Your task to perform on an android device: show emergency info Image 0: 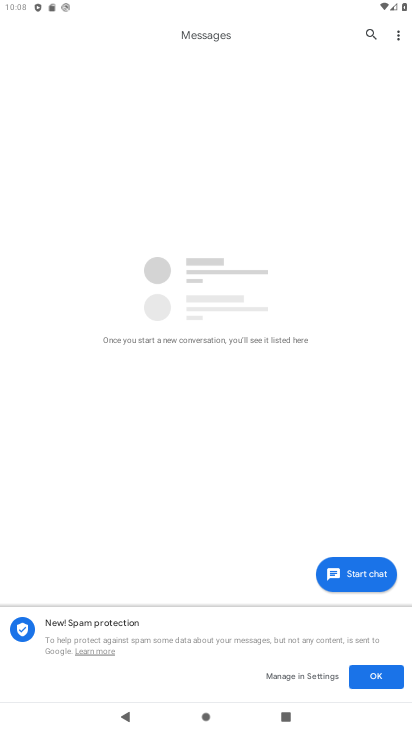
Step 0: press home button
Your task to perform on an android device: show emergency info Image 1: 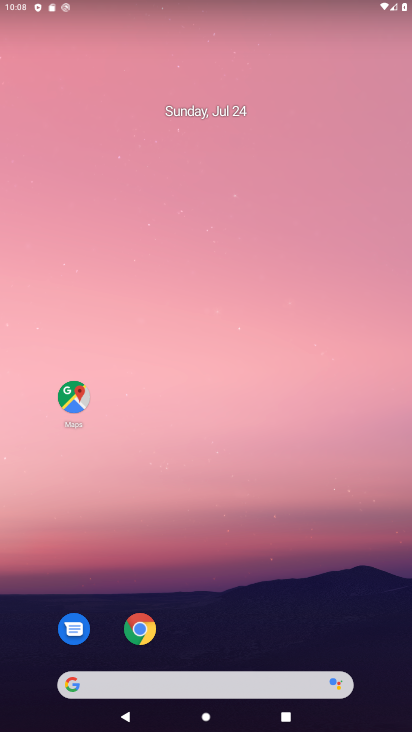
Step 1: drag from (197, 632) to (193, 91)
Your task to perform on an android device: show emergency info Image 2: 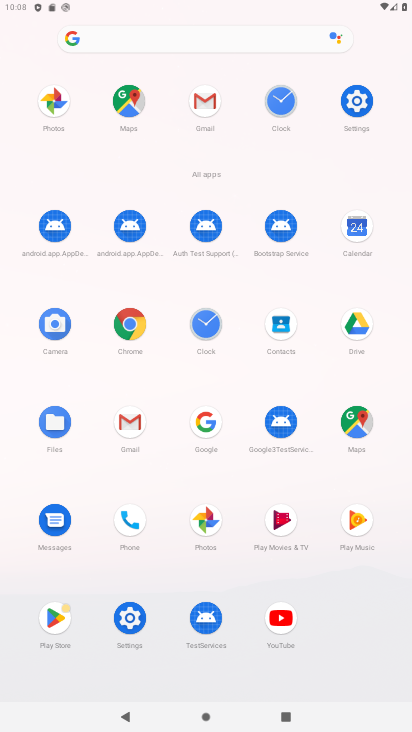
Step 2: click (357, 96)
Your task to perform on an android device: show emergency info Image 3: 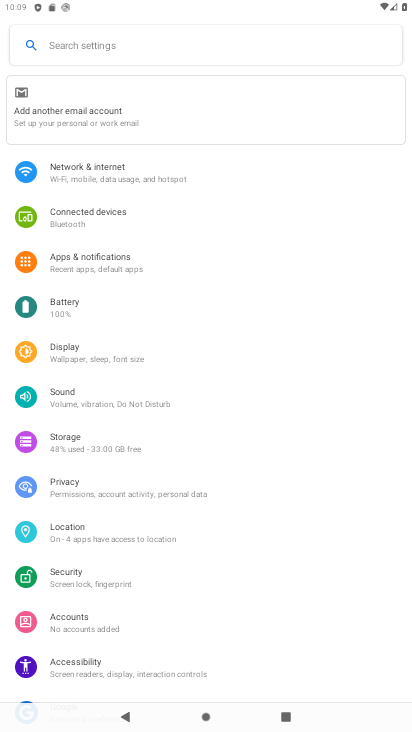
Step 3: drag from (247, 682) to (245, 327)
Your task to perform on an android device: show emergency info Image 4: 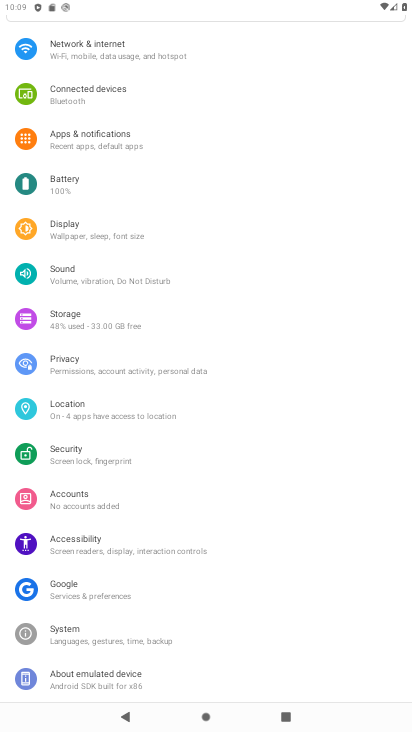
Step 4: click (150, 673)
Your task to perform on an android device: show emergency info Image 5: 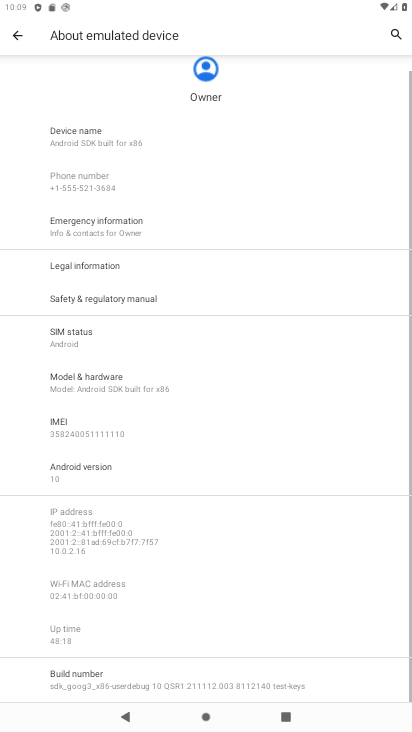
Step 5: click (182, 236)
Your task to perform on an android device: show emergency info Image 6: 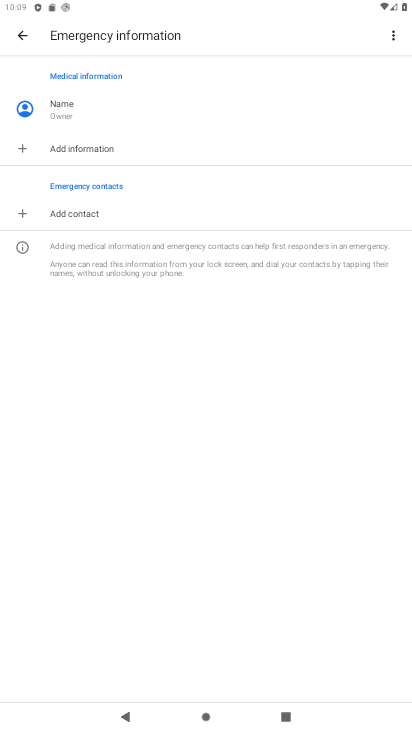
Step 6: task complete